Your task to perform on an android device: Go to location settings Image 0: 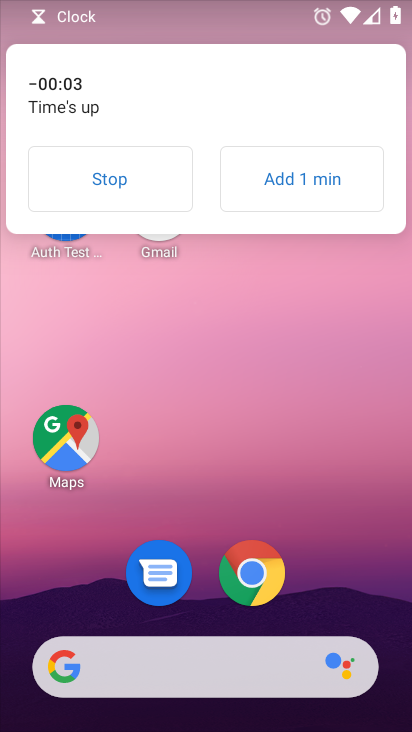
Step 0: click (105, 188)
Your task to perform on an android device: Go to location settings Image 1: 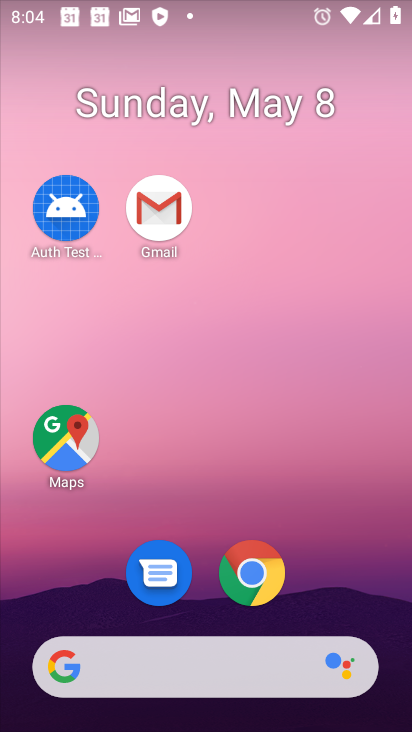
Step 1: drag from (363, 572) to (225, 52)
Your task to perform on an android device: Go to location settings Image 2: 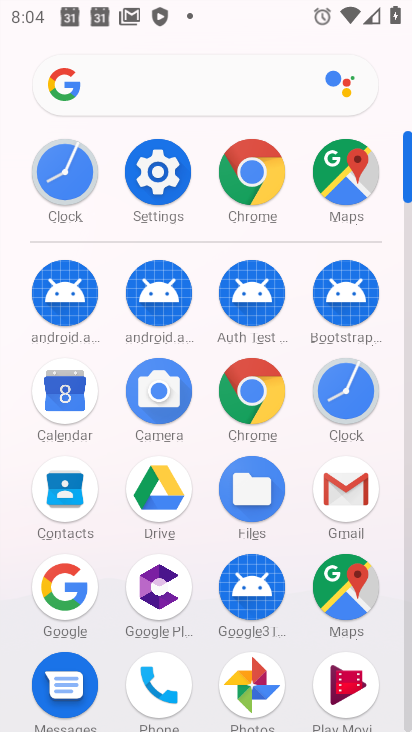
Step 2: click (144, 176)
Your task to perform on an android device: Go to location settings Image 3: 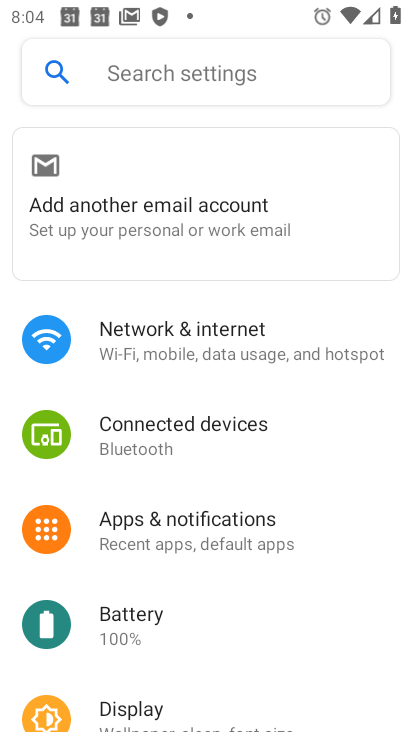
Step 3: drag from (236, 605) to (157, 119)
Your task to perform on an android device: Go to location settings Image 4: 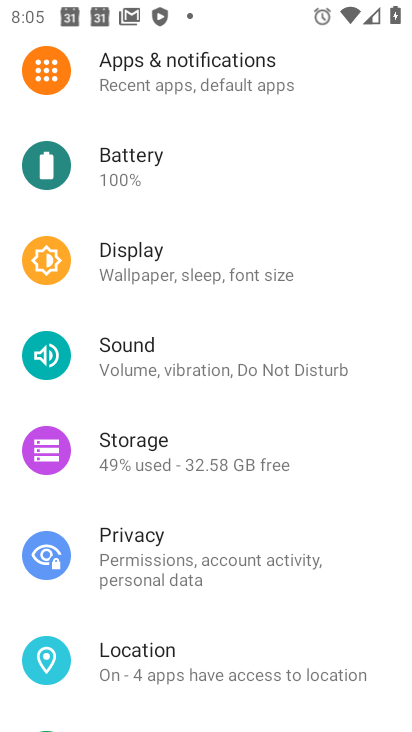
Step 4: click (159, 663)
Your task to perform on an android device: Go to location settings Image 5: 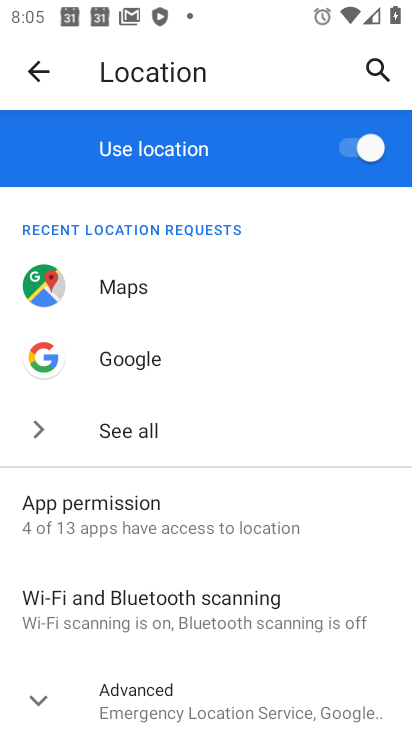
Step 5: task complete